Your task to perform on an android device: change text size in settings app Image 0: 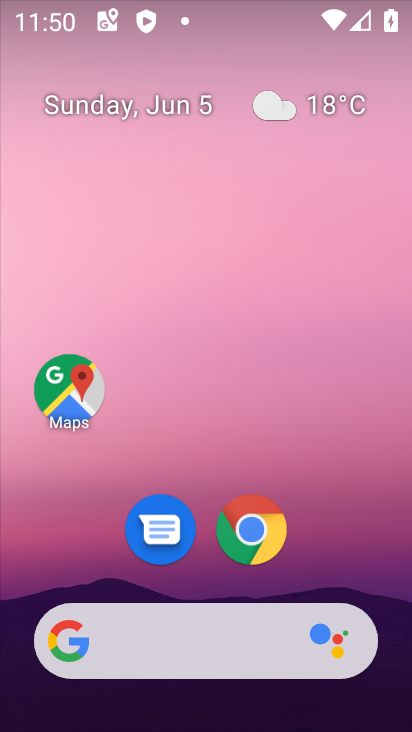
Step 0: drag from (353, 552) to (298, 6)
Your task to perform on an android device: change text size in settings app Image 1: 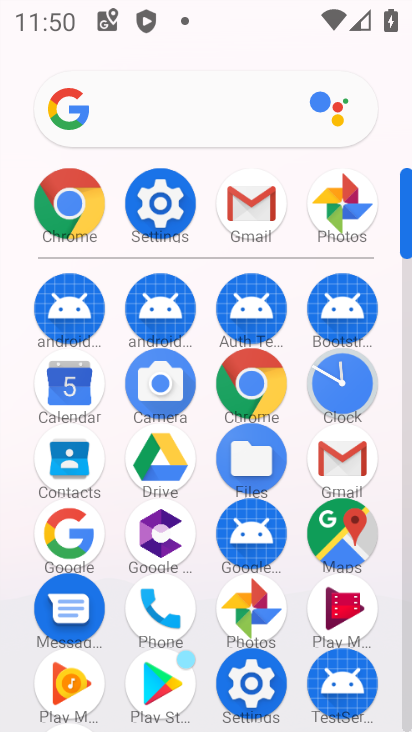
Step 1: click (165, 203)
Your task to perform on an android device: change text size in settings app Image 2: 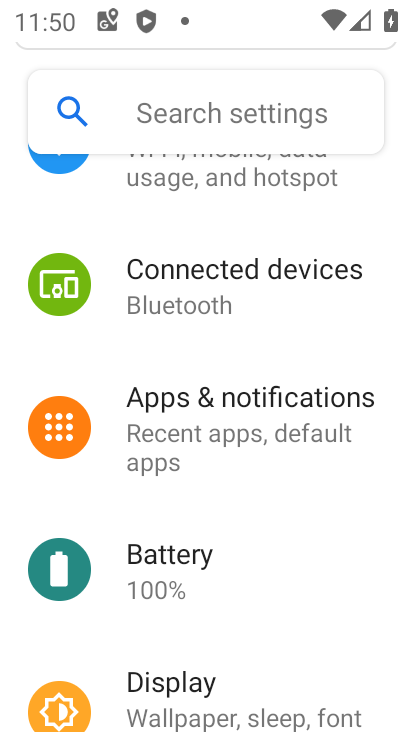
Step 2: drag from (293, 621) to (373, 206)
Your task to perform on an android device: change text size in settings app Image 3: 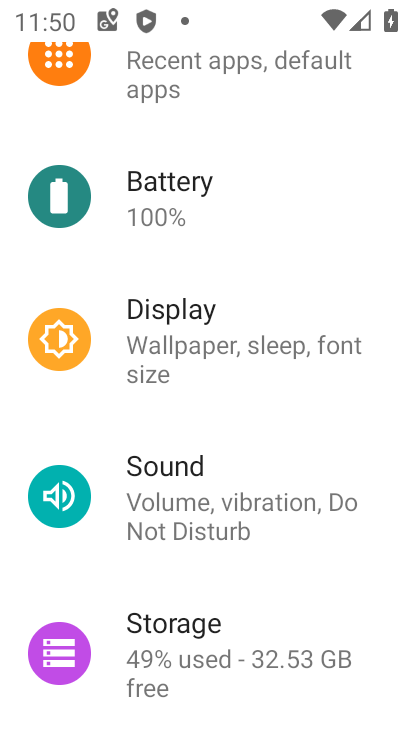
Step 3: click (218, 331)
Your task to perform on an android device: change text size in settings app Image 4: 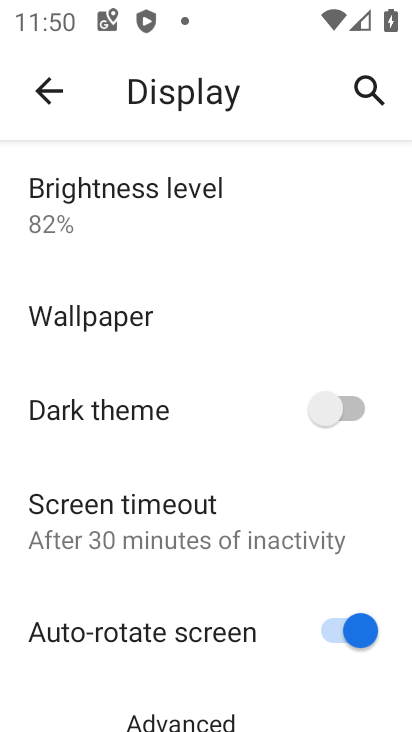
Step 4: click (258, 137)
Your task to perform on an android device: change text size in settings app Image 5: 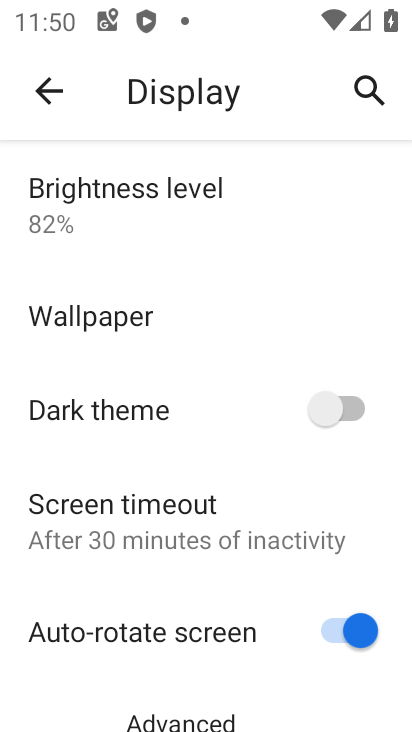
Step 5: drag from (113, 249) to (169, 651)
Your task to perform on an android device: change text size in settings app Image 6: 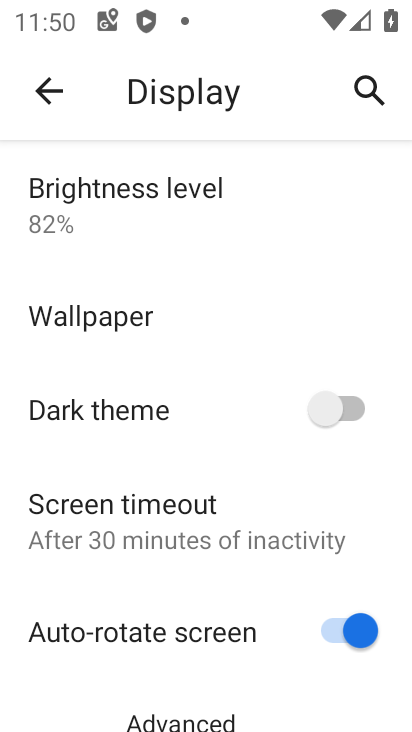
Step 6: drag from (174, 627) to (270, 125)
Your task to perform on an android device: change text size in settings app Image 7: 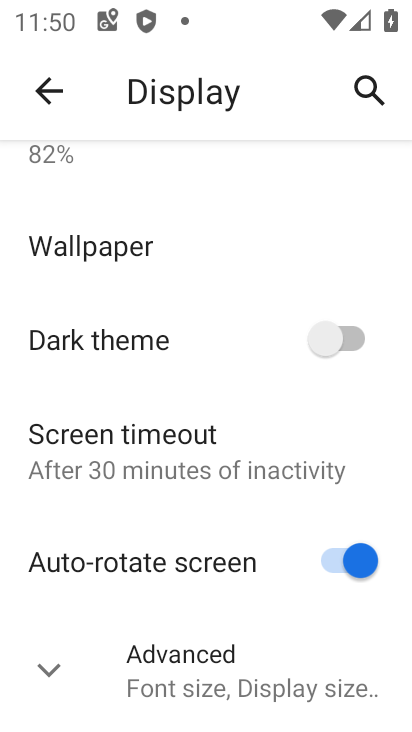
Step 7: click (245, 679)
Your task to perform on an android device: change text size in settings app Image 8: 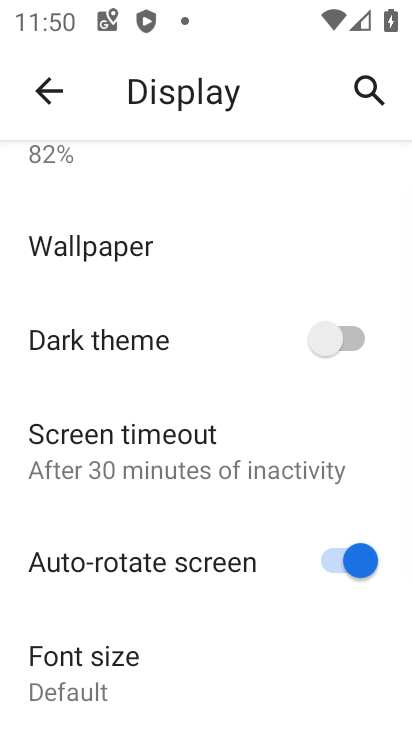
Step 8: drag from (156, 617) to (289, 184)
Your task to perform on an android device: change text size in settings app Image 9: 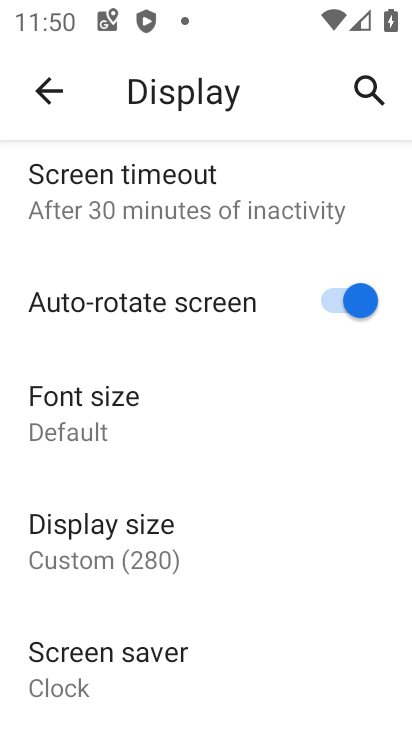
Step 9: click (80, 391)
Your task to perform on an android device: change text size in settings app Image 10: 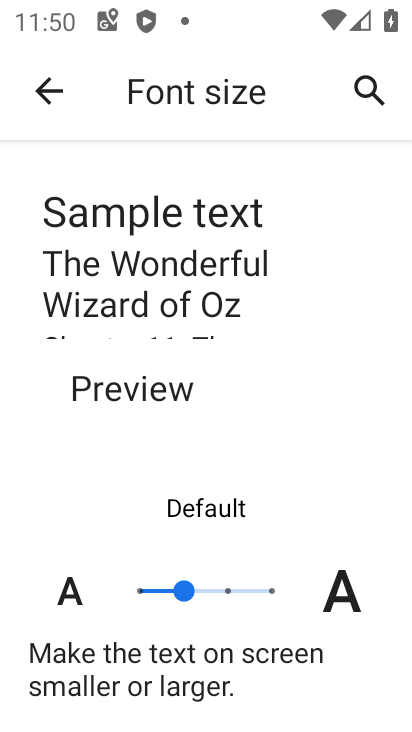
Step 10: click (219, 585)
Your task to perform on an android device: change text size in settings app Image 11: 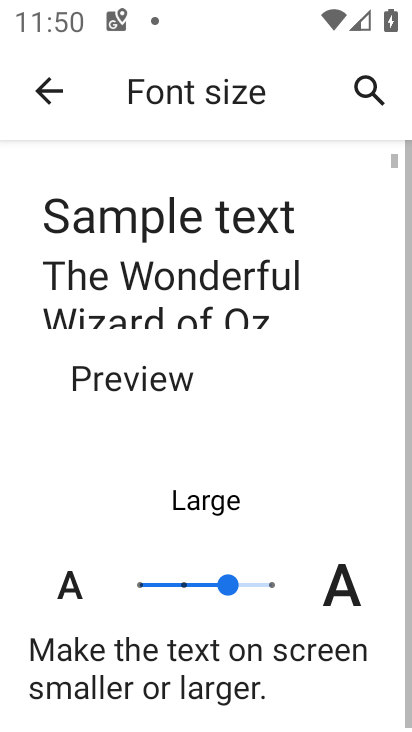
Step 11: task complete